Your task to perform on an android device: toggle javascript in the chrome app Image 0: 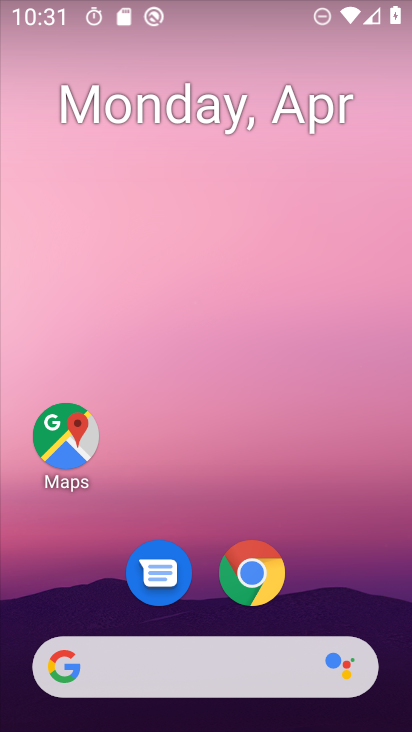
Step 0: drag from (379, 478) to (410, 55)
Your task to perform on an android device: toggle javascript in the chrome app Image 1: 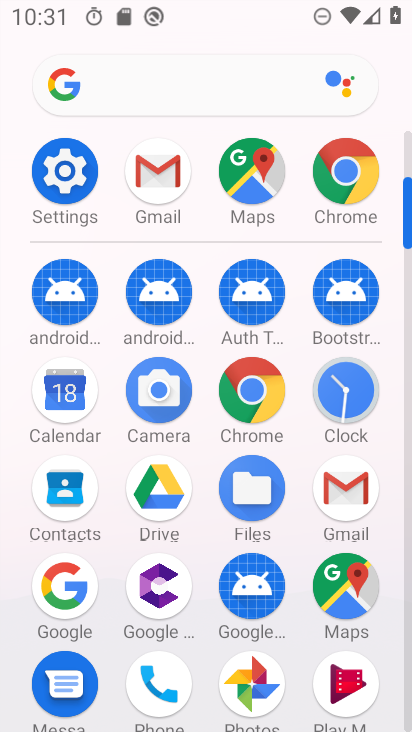
Step 1: click (345, 180)
Your task to perform on an android device: toggle javascript in the chrome app Image 2: 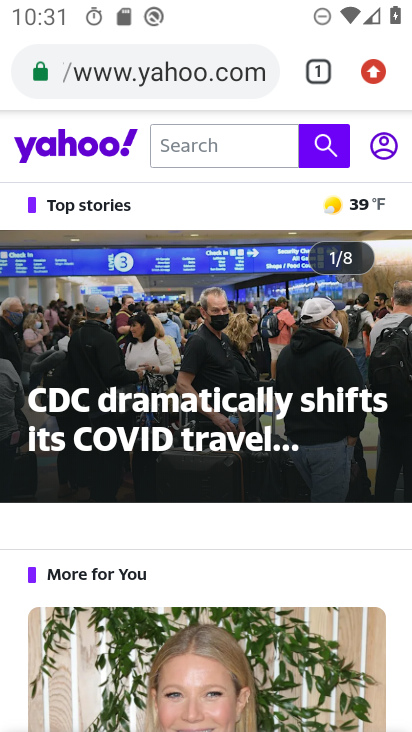
Step 2: drag from (293, 462) to (292, 586)
Your task to perform on an android device: toggle javascript in the chrome app Image 3: 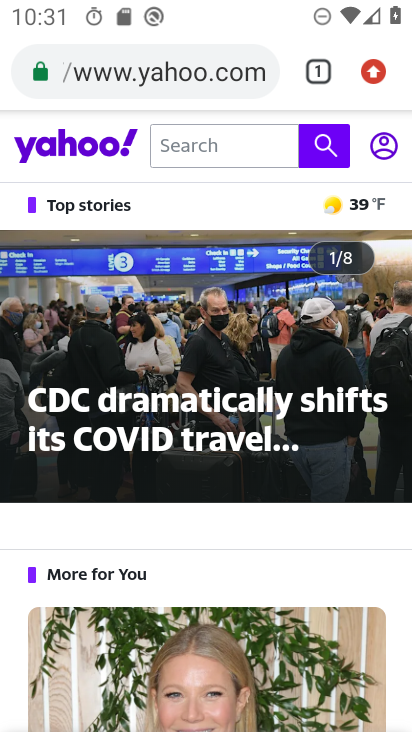
Step 3: drag from (300, 272) to (252, 682)
Your task to perform on an android device: toggle javascript in the chrome app Image 4: 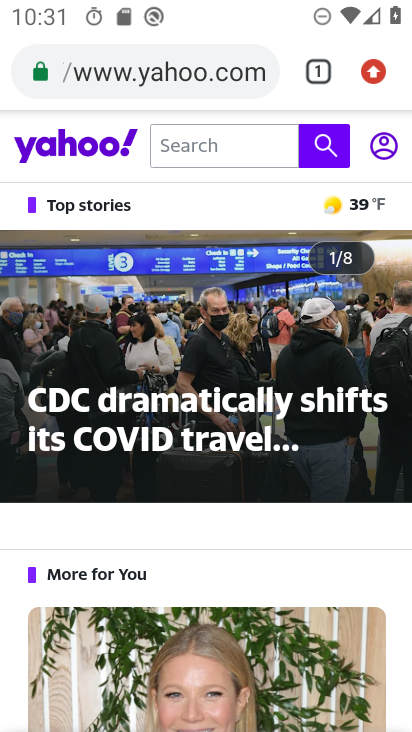
Step 4: press back button
Your task to perform on an android device: toggle javascript in the chrome app Image 5: 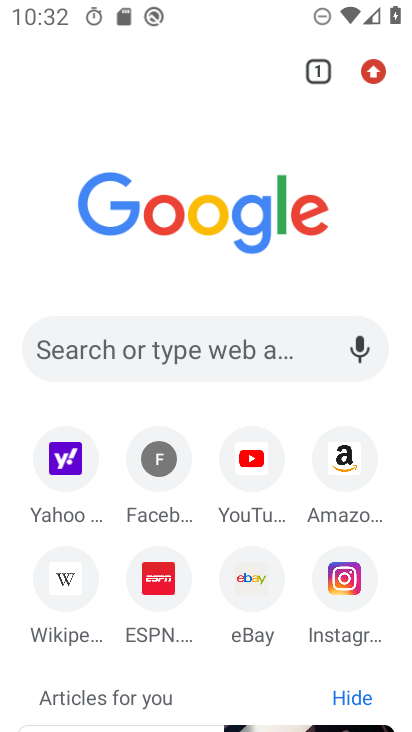
Step 5: click (374, 85)
Your task to perform on an android device: toggle javascript in the chrome app Image 6: 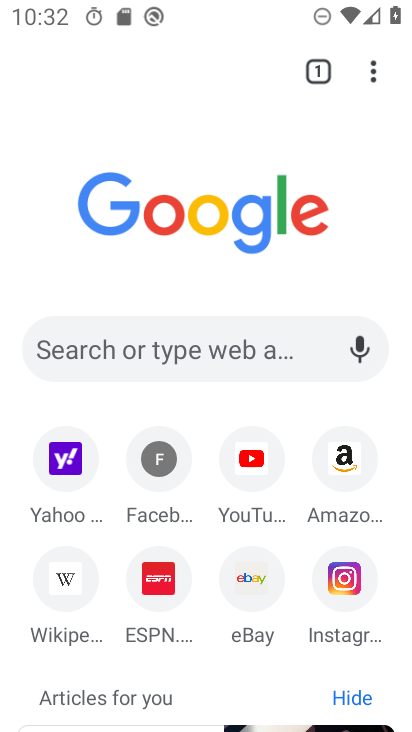
Step 6: click (374, 85)
Your task to perform on an android device: toggle javascript in the chrome app Image 7: 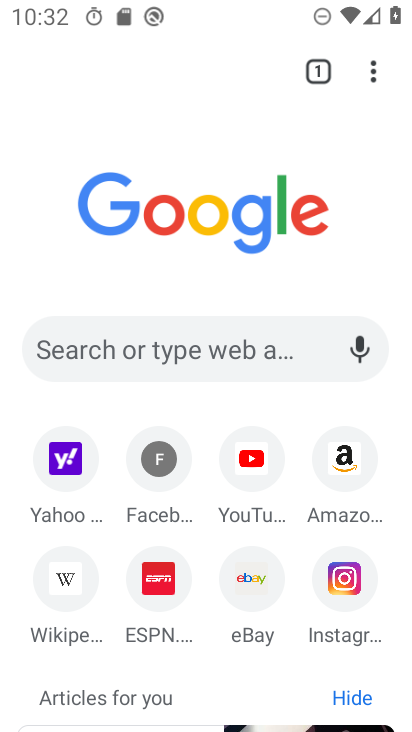
Step 7: click (381, 72)
Your task to perform on an android device: toggle javascript in the chrome app Image 8: 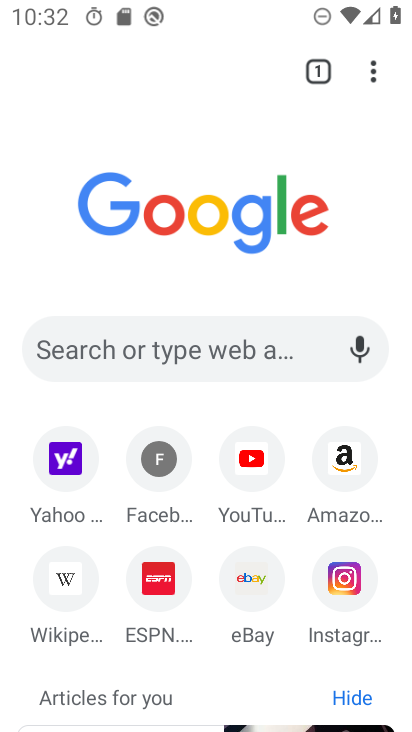
Step 8: drag from (381, 72) to (168, 561)
Your task to perform on an android device: toggle javascript in the chrome app Image 9: 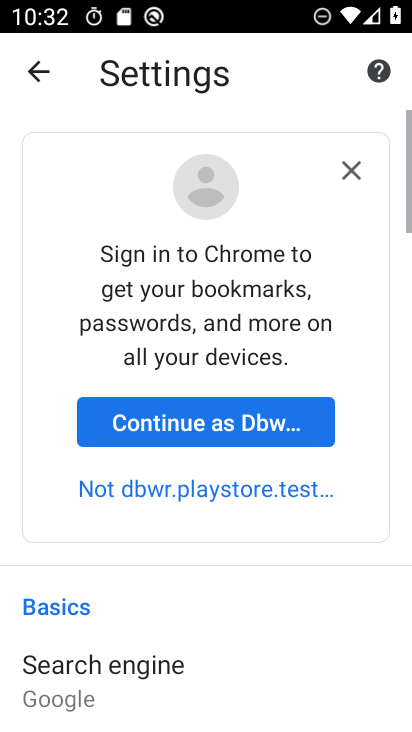
Step 9: drag from (211, 648) to (329, 87)
Your task to perform on an android device: toggle javascript in the chrome app Image 10: 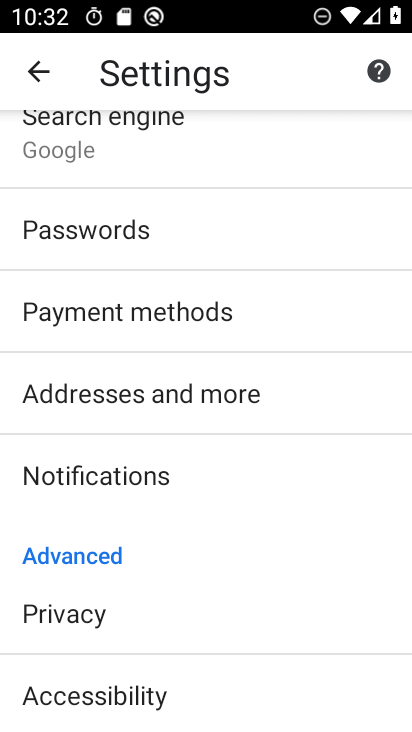
Step 10: drag from (209, 542) to (269, 105)
Your task to perform on an android device: toggle javascript in the chrome app Image 11: 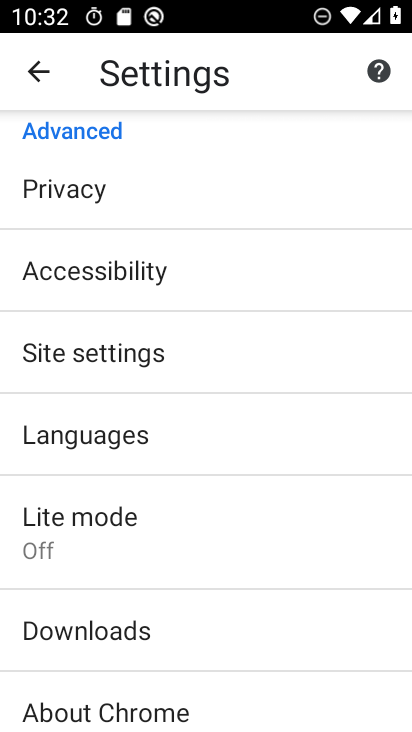
Step 11: click (162, 371)
Your task to perform on an android device: toggle javascript in the chrome app Image 12: 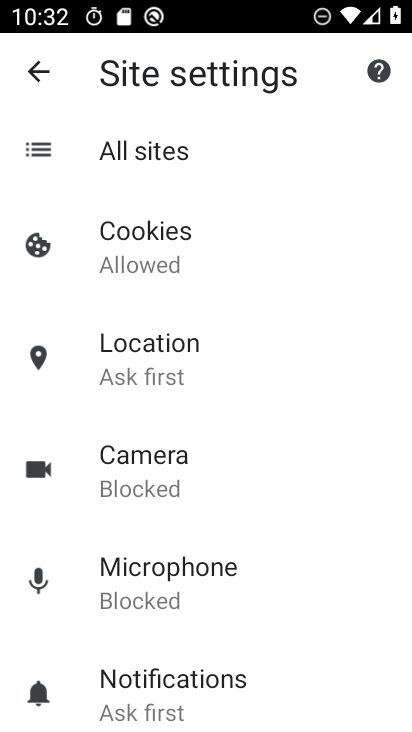
Step 12: drag from (196, 409) to (215, 221)
Your task to perform on an android device: toggle javascript in the chrome app Image 13: 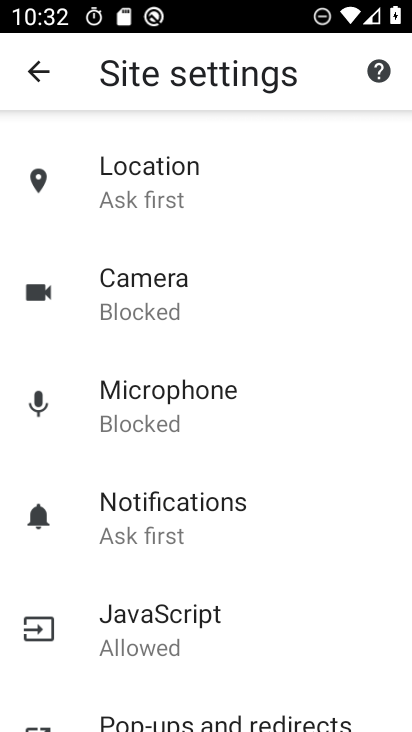
Step 13: drag from (231, 596) to (228, 104)
Your task to perform on an android device: toggle javascript in the chrome app Image 14: 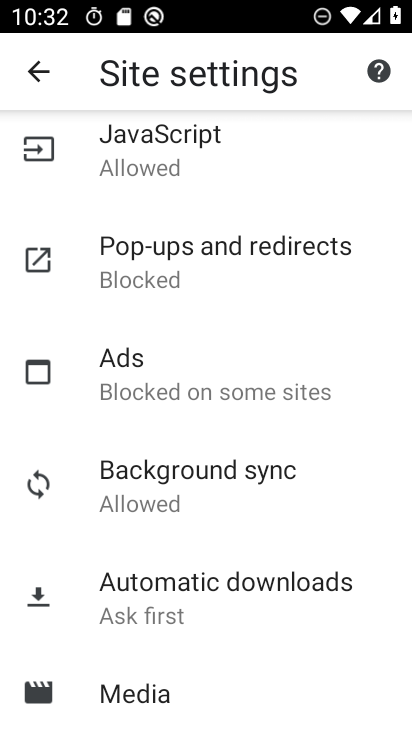
Step 14: click (183, 114)
Your task to perform on an android device: toggle javascript in the chrome app Image 15: 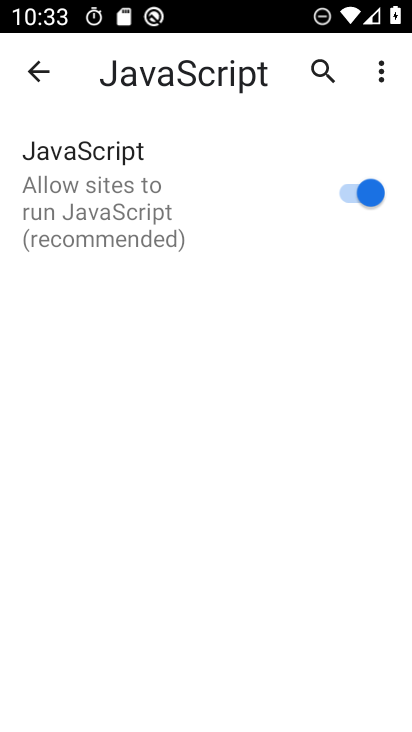
Step 15: click (360, 185)
Your task to perform on an android device: toggle javascript in the chrome app Image 16: 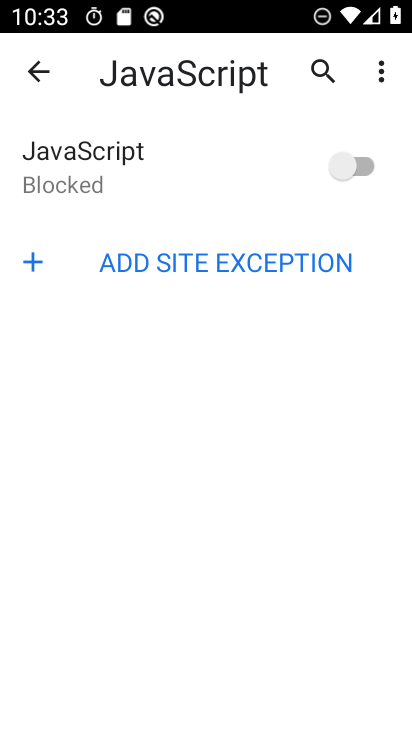
Step 16: task complete